Your task to perform on an android device: Go to calendar. Show me events next week Image 0: 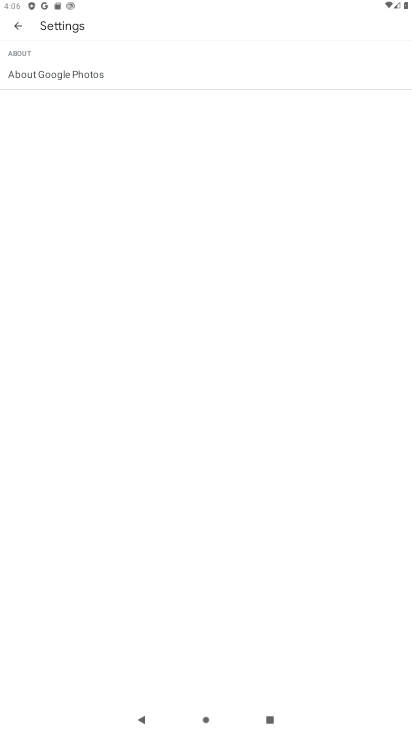
Step 0: press home button
Your task to perform on an android device: Go to calendar. Show me events next week Image 1: 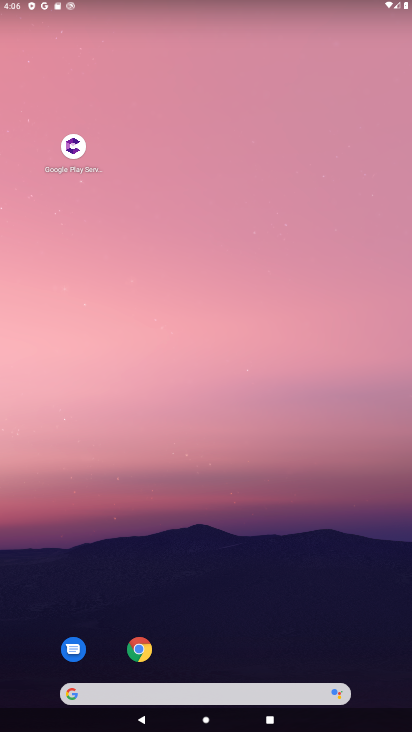
Step 1: drag from (255, 580) to (300, 264)
Your task to perform on an android device: Go to calendar. Show me events next week Image 2: 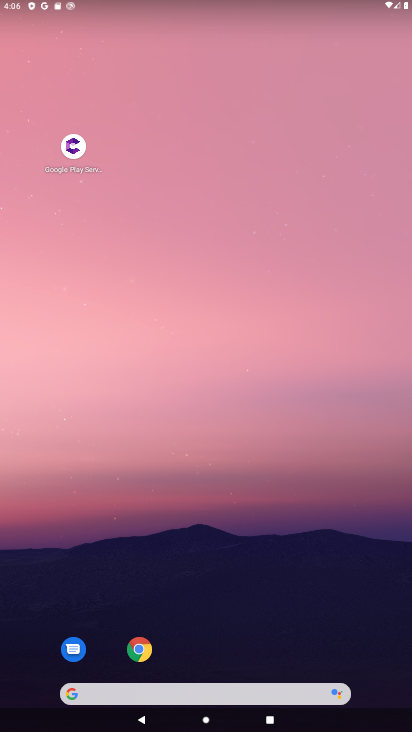
Step 2: drag from (284, 449) to (295, 156)
Your task to perform on an android device: Go to calendar. Show me events next week Image 3: 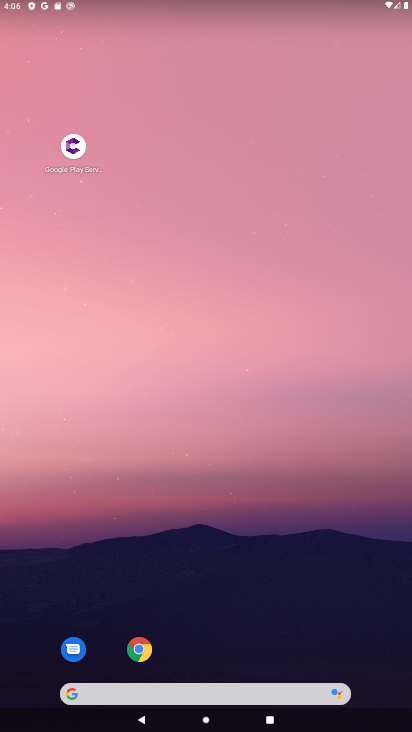
Step 3: drag from (260, 544) to (298, 173)
Your task to perform on an android device: Go to calendar. Show me events next week Image 4: 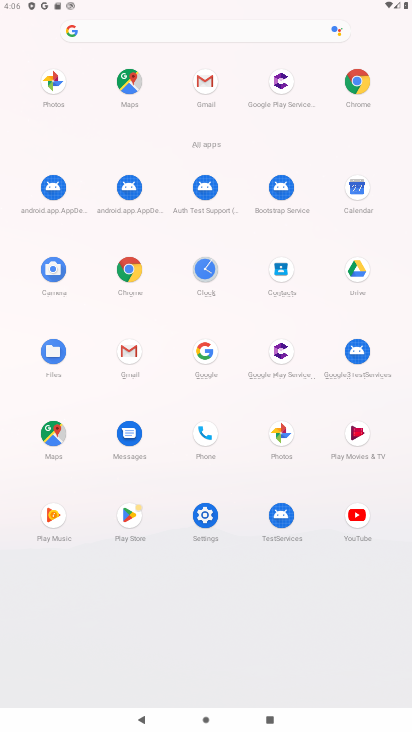
Step 4: click (355, 190)
Your task to perform on an android device: Go to calendar. Show me events next week Image 5: 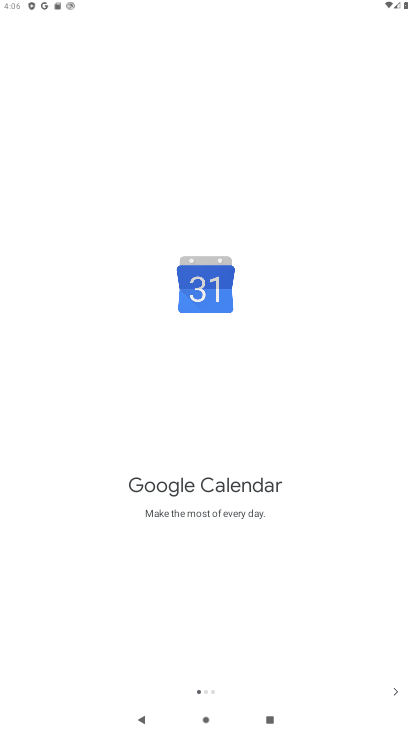
Step 5: click (399, 689)
Your task to perform on an android device: Go to calendar. Show me events next week Image 6: 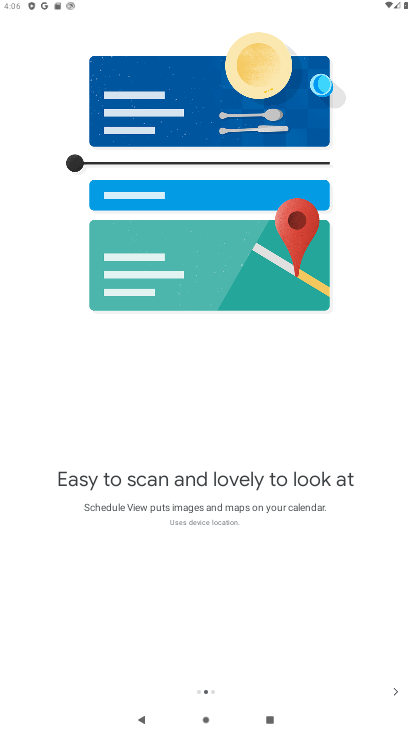
Step 6: click (398, 690)
Your task to perform on an android device: Go to calendar. Show me events next week Image 7: 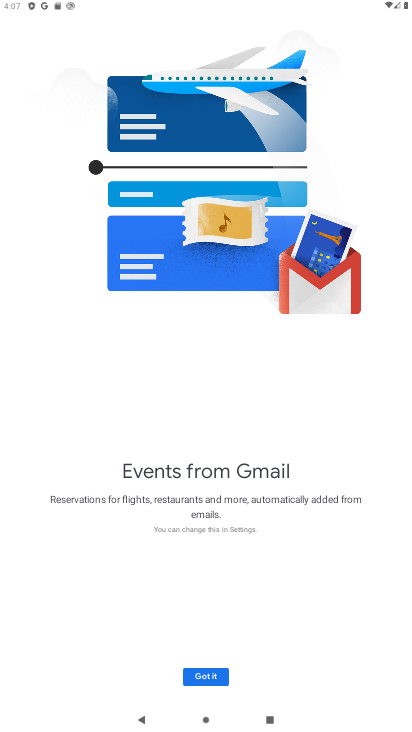
Step 7: click (209, 675)
Your task to perform on an android device: Go to calendar. Show me events next week Image 8: 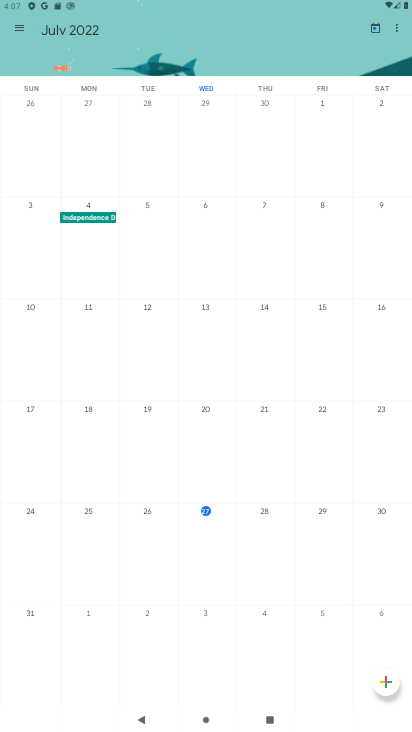
Step 8: task complete